Your task to perform on an android device: see creations saved in the google photos Image 0: 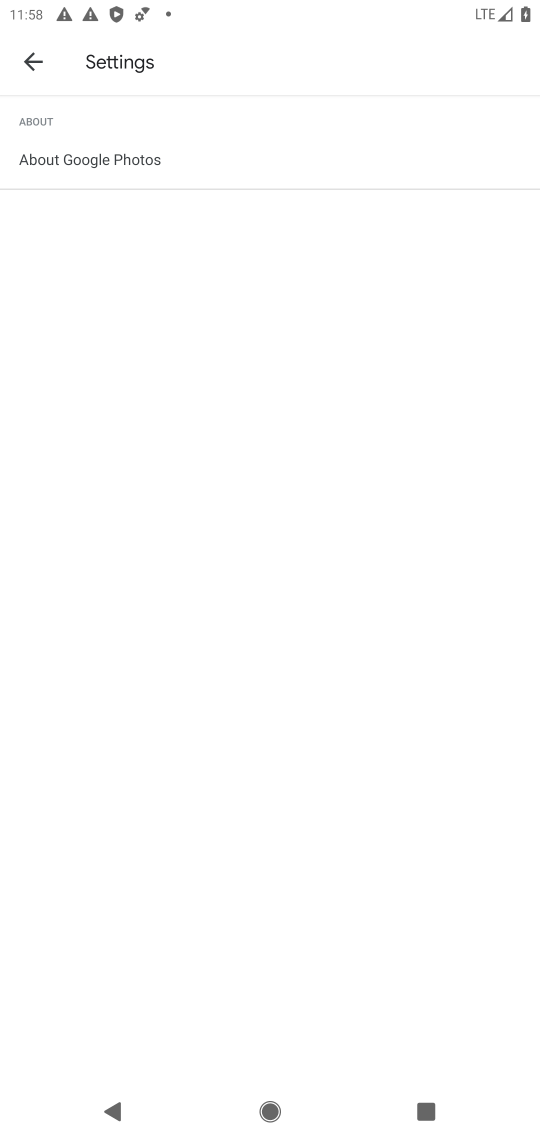
Step 0: press home button
Your task to perform on an android device: see creations saved in the google photos Image 1: 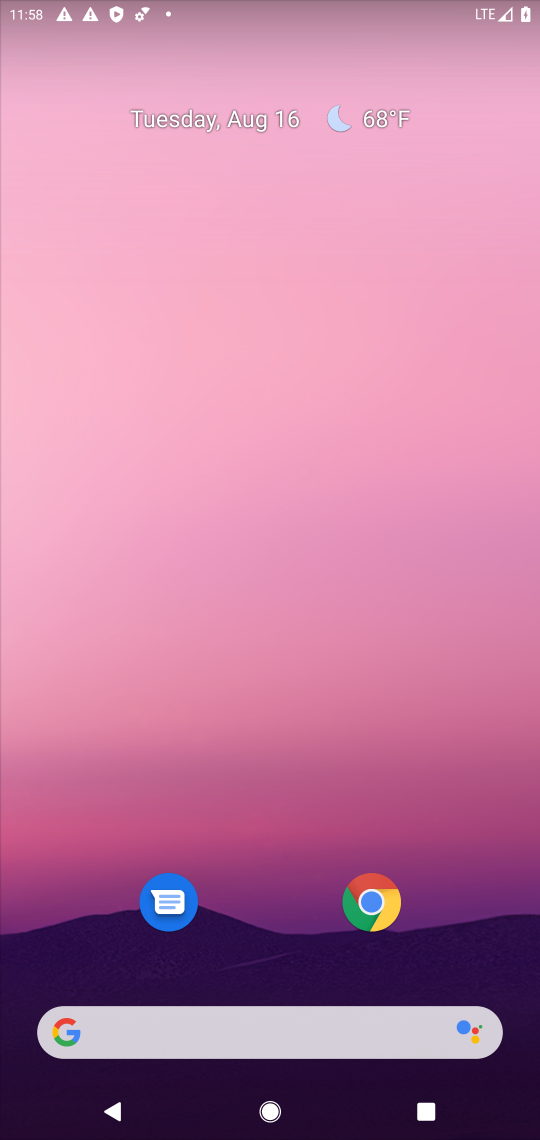
Step 1: drag from (261, 801) to (223, 0)
Your task to perform on an android device: see creations saved in the google photos Image 2: 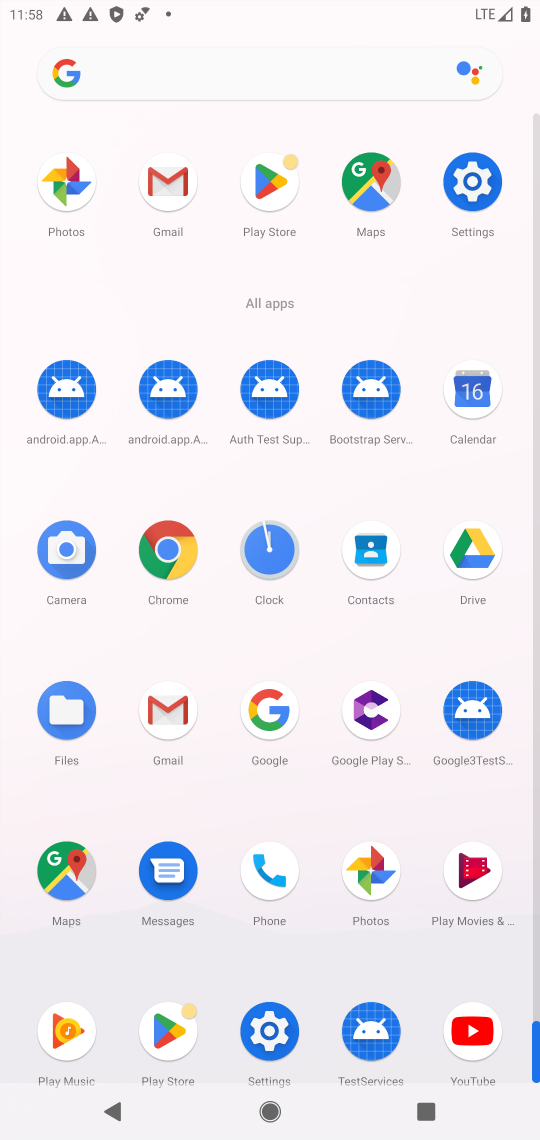
Step 2: click (375, 880)
Your task to perform on an android device: see creations saved in the google photos Image 3: 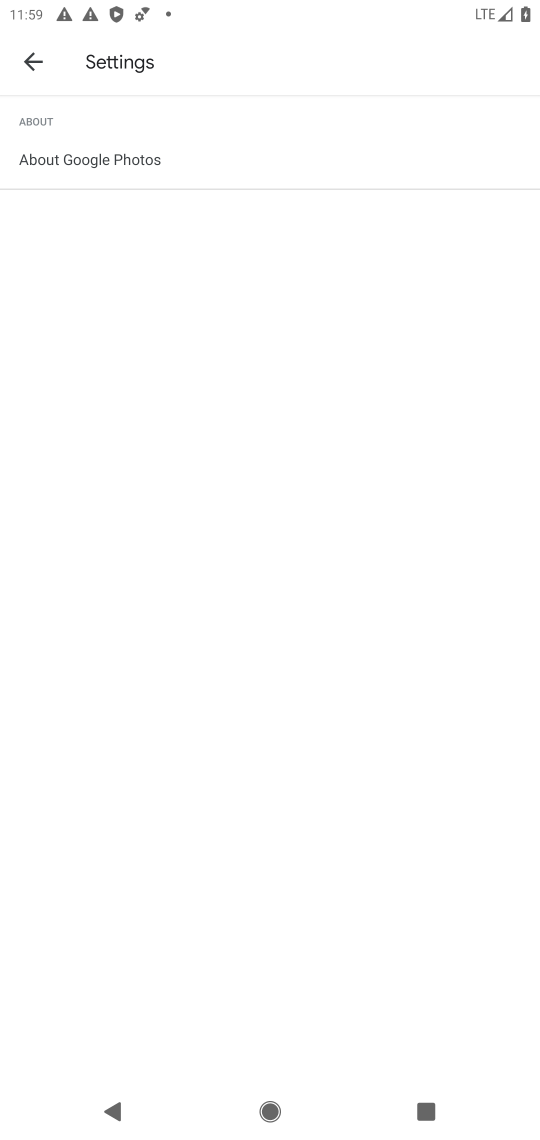
Step 3: click (40, 56)
Your task to perform on an android device: see creations saved in the google photos Image 4: 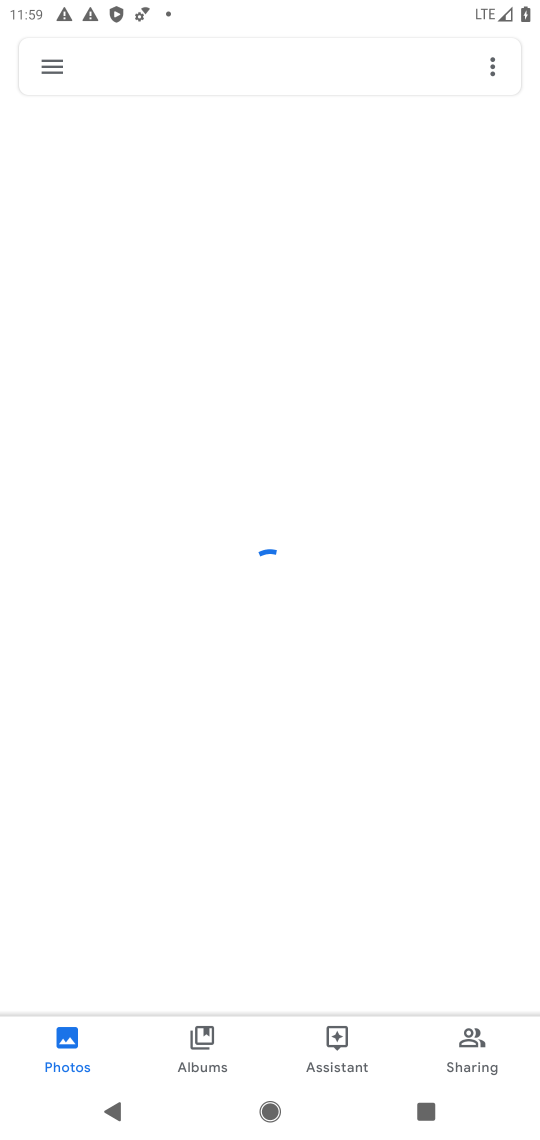
Step 4: click (272, 69)
Your task to perform on an android device: see creations saved in the google photos Image 5: 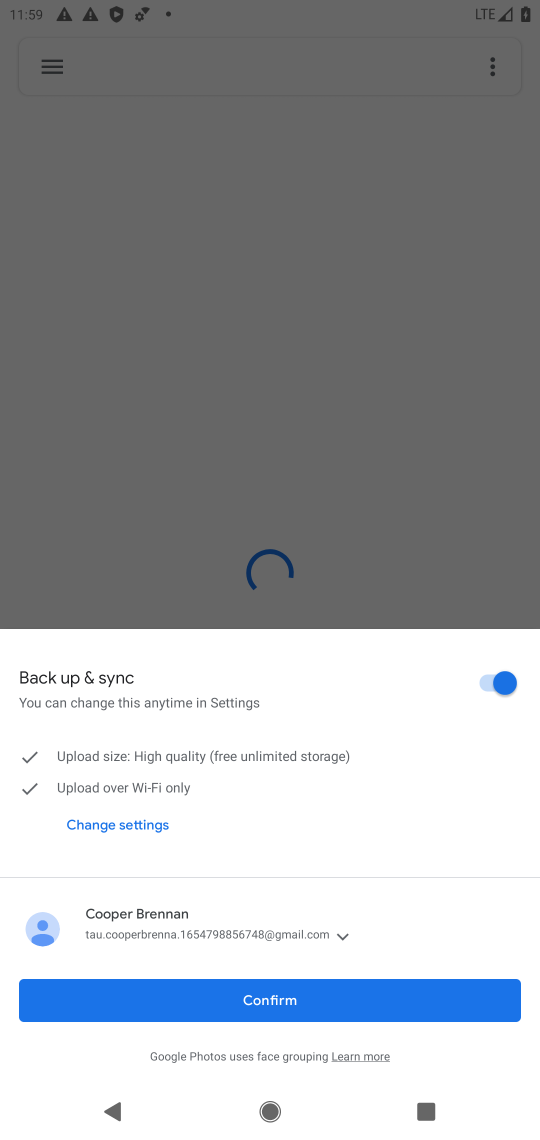
Step 5: click (324, 1005)
Your task to perform on an android device: see creations saved in the google photos Image 6: 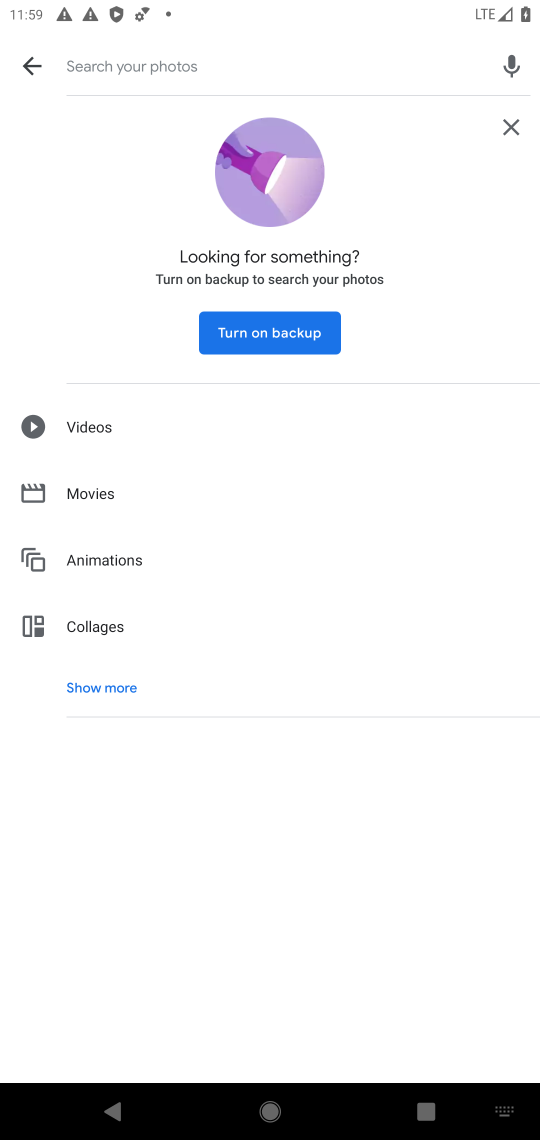
Step 6: type "creations"
Your task to perform on an android device: see creations saved in the google photos Image 7: 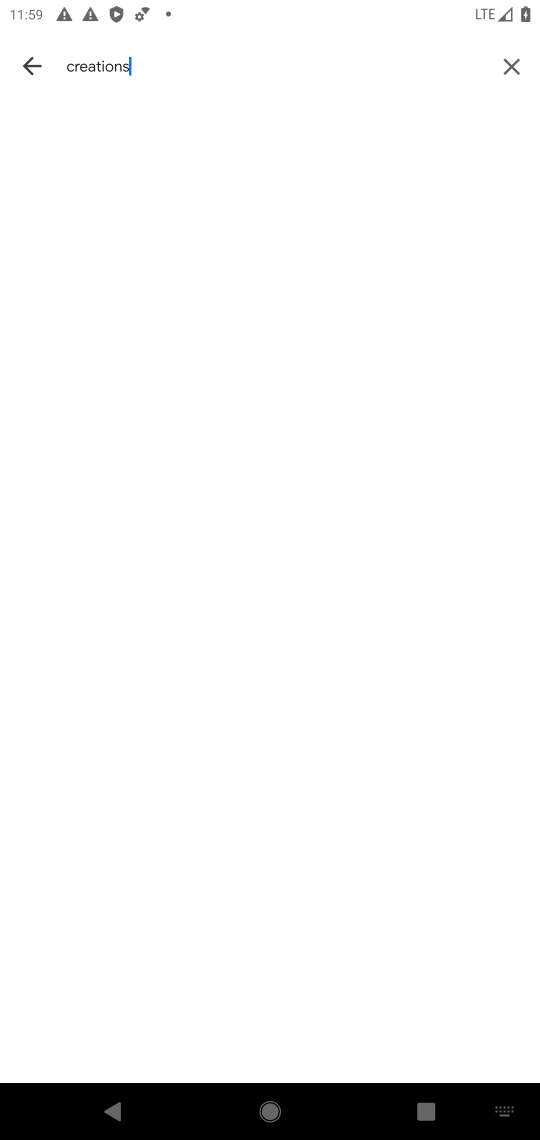
Step 7: task complete